Your task to perform on an android device: Open calendar and show me the first week of next month Image 0: 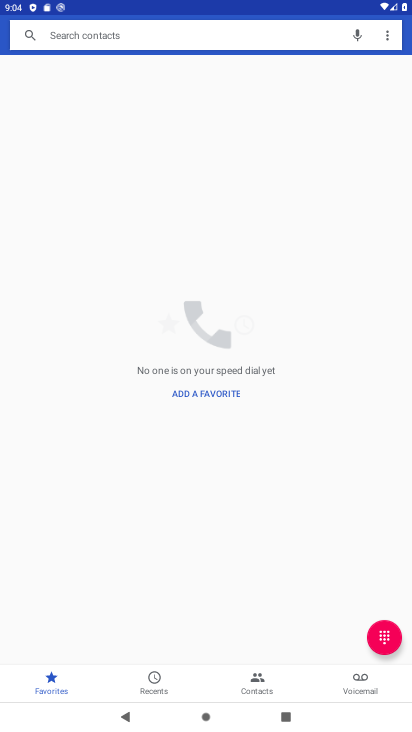
Step 0: press home button
Your task to perform on an android device: Open calendar and show me the first week of next month Image 1: 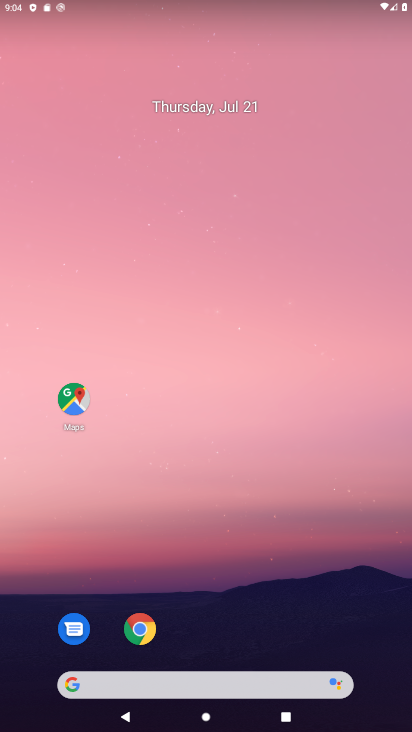
Step 1: click (229, 589)
Your task to perform on an android device: Open calendar and show me the first week of next month Image 2: 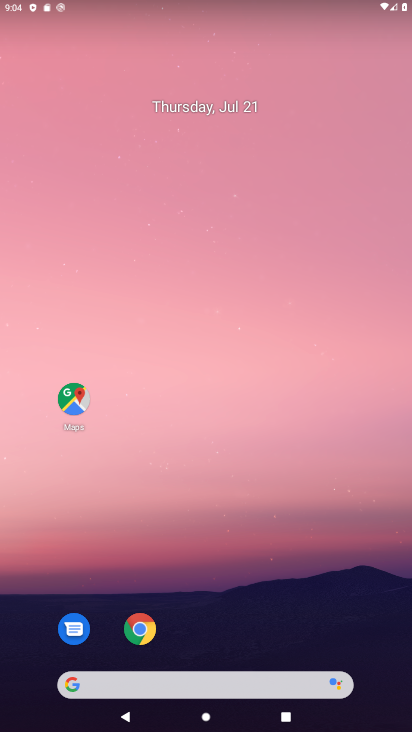
Step 2: drag from (267, 600) to (346, 24)
Your task to perform on an android device: Open calendar and show me the first week of next month Image 3: 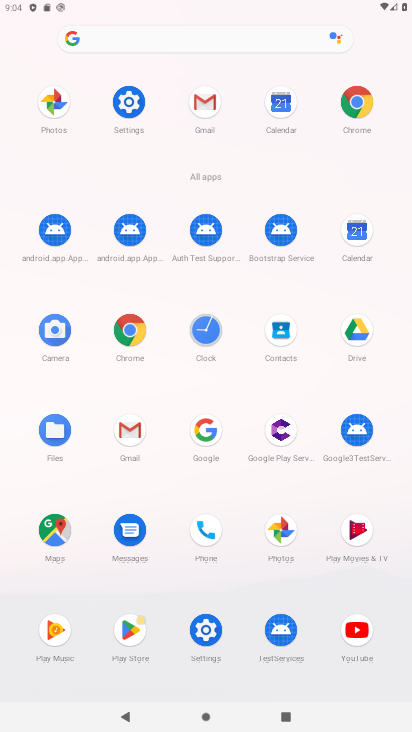
Step 3: click (353, 224)
Your task to perform on an android device: Open calendar and show me the first week of next month Image 4: 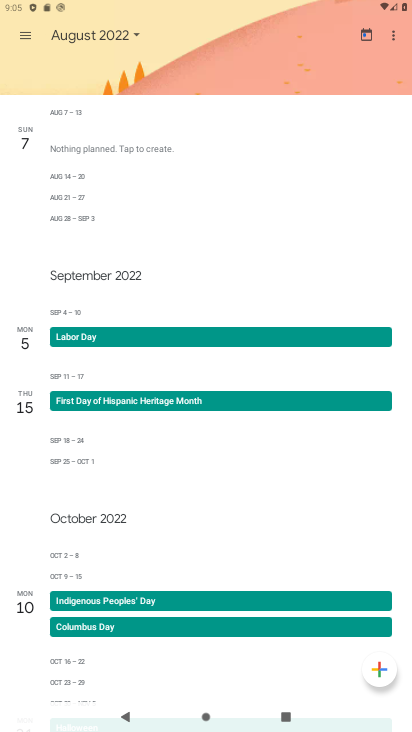
Step 4: click (73, 26)
Your task to perform on an android device: Open calendar and show me the first week of next month Image 5: 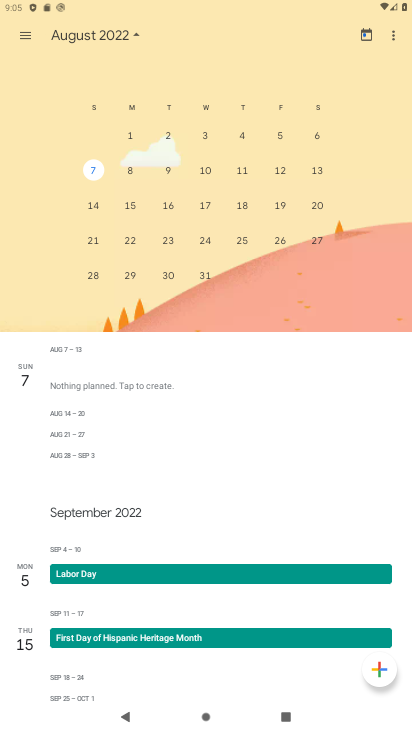
Step 5: click (135, 126)
Your task to perform on an android device: Open calendar and show me the first week of next month Image 6: 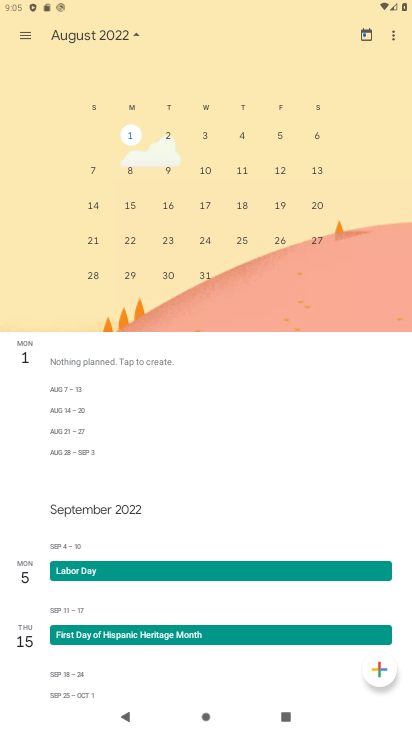
Step 6: task complete